Your task to perform on an android device: turn on data saver in the chrome app Image 0: 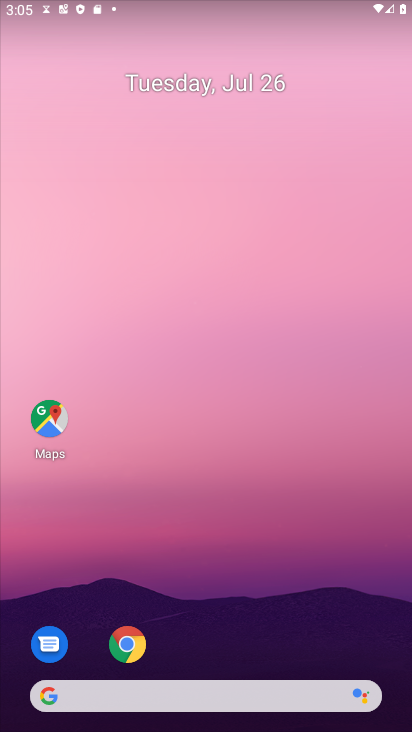
Step 0: press home button
Your task to perform on an android device: turn on data saver in the chrome app Image 1: 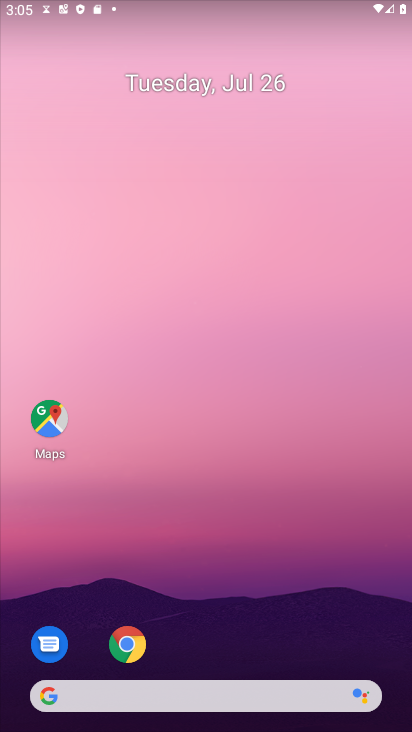
Step 1: click (221, 650)
Your task to perform on an android device: turn on data saver in the chrome app Image 2: 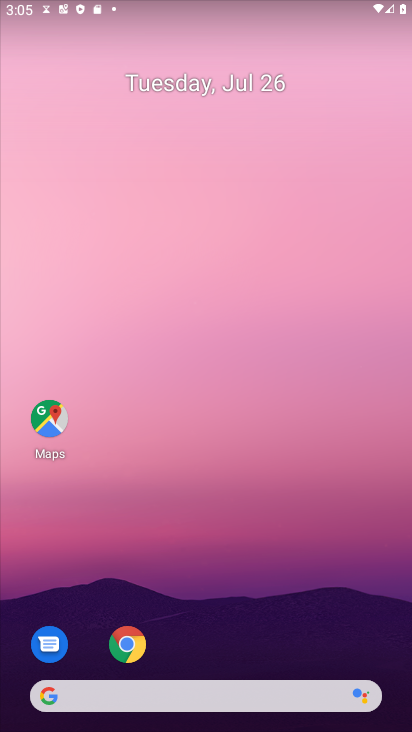
Step 2: click (141, 648)
Your task to perform on an android device: turn on data saver in the chrome app Image 3: 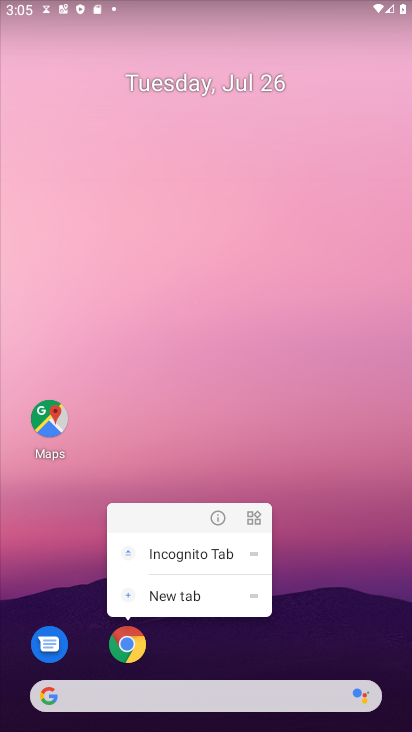
Step 3: click (147, 642)
Your task to perform on an android device: turn on data saver in the chrome app Image 4: 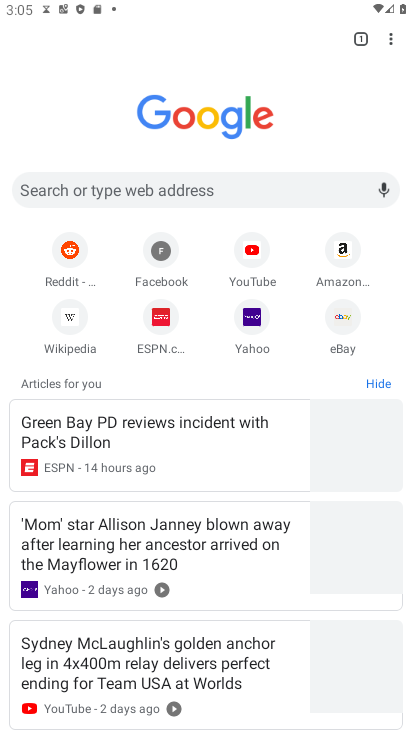
Step 4: drag from (394, 44) to (299, 329)
Your task to perform on an android device: turn on data saver in the chrome app Image 5: 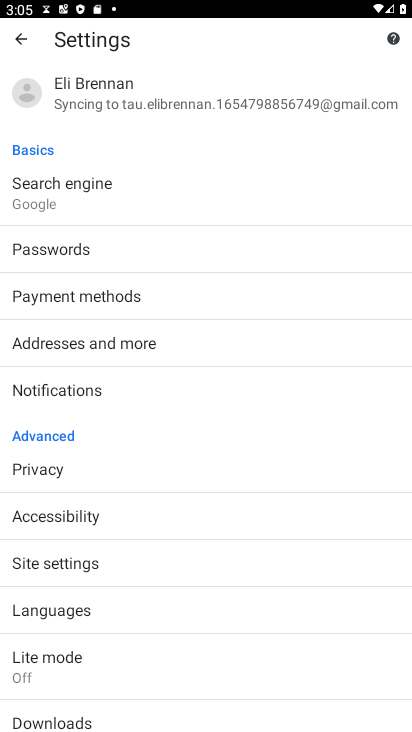
Step 5: click (44, 668)
Your task to perform on an android device: turn on data saver in the chrome app Image 6: 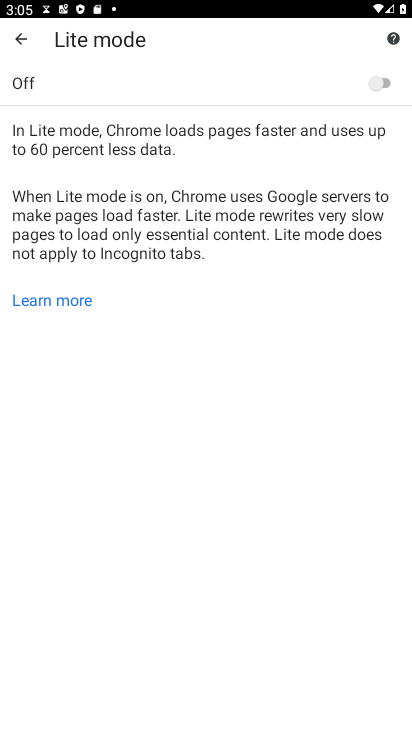
Step 6: click (379, 70)
Your task to perform on an android device: turn on data saver in the chrome app Image 7: 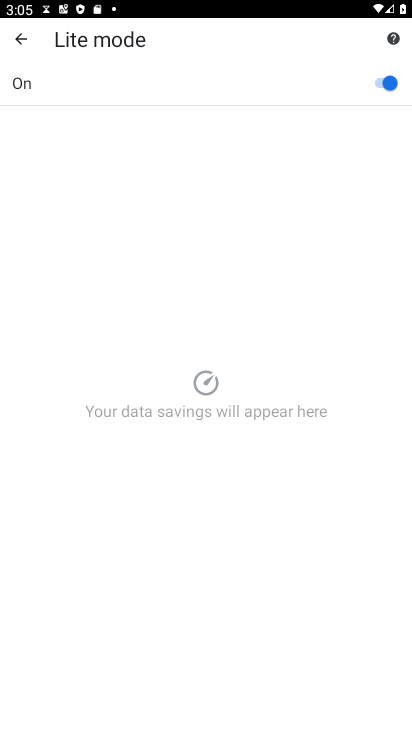
Step 7: task complete